Your task to perform on an android device: turn pop-ups on in chrome Image 0: 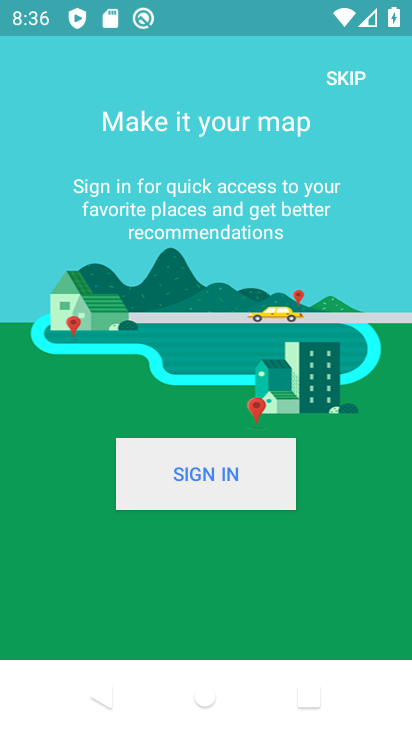
Step 0: press back button
Your task to perform on an android device: turn pop-ups on in chrome Image 1: 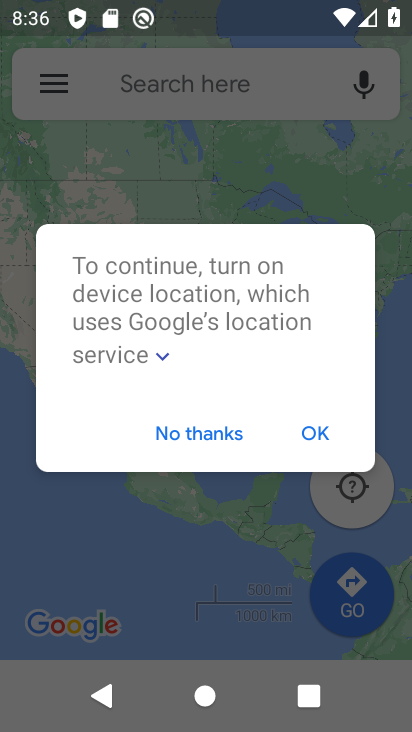
Step 1: press back button
Your task to perform on an android device: turn pop-ups on in chrome Image 2: 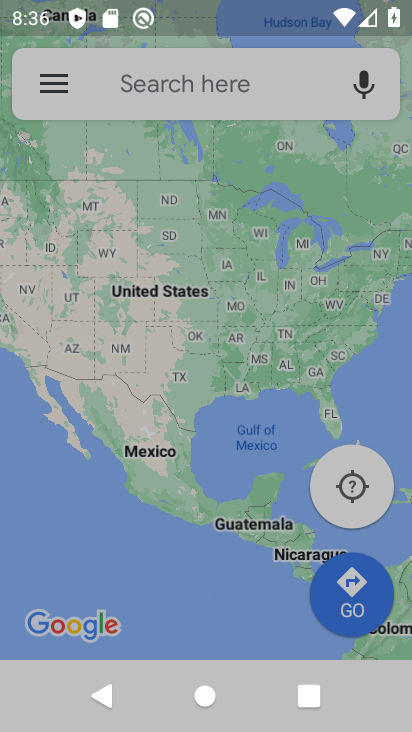
Step 2: click (204, 445)
Your task to perform on an android device: turn pop-ups on in chrome Image 3: 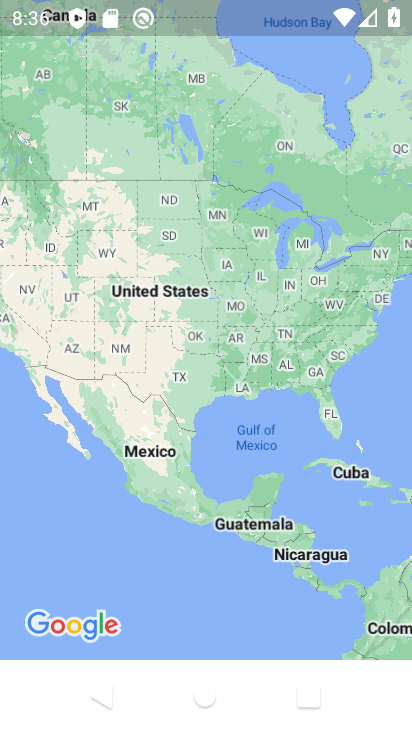
Step 3: press home button
Your task to perform on an android device: turn pop-ups on in chrome Image 4: 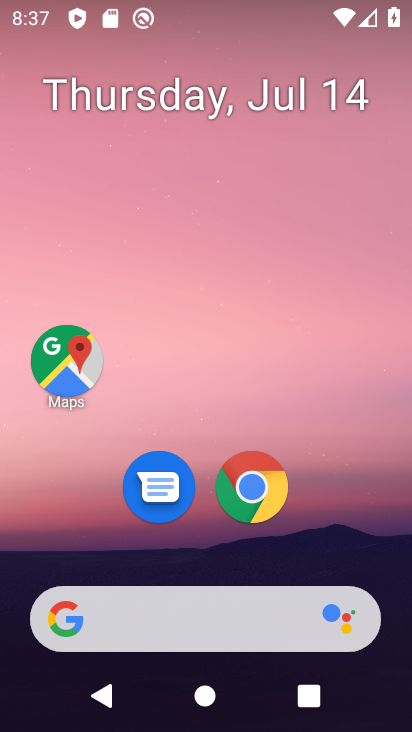
Step 4: click (259, 497)
Your task to perform on an android device: turn pop-ups on in chrome Image 5: 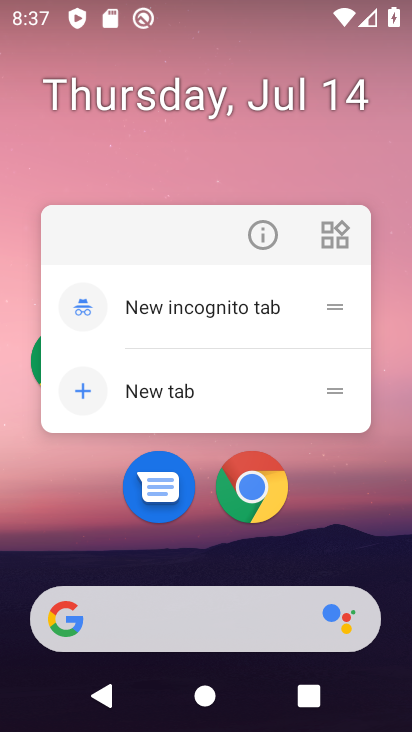
Step 5: click (259, 497)
Your task to perform on an android device: turn pop-ups on in chrome Image 6: 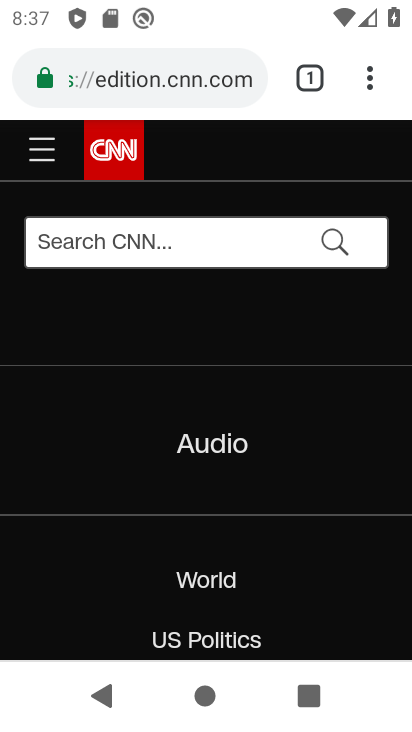
Step 6: drag from (373, 74) to (75, 552)
Your task to perform on an android device: turn pop-ups on in chrome Image 7: 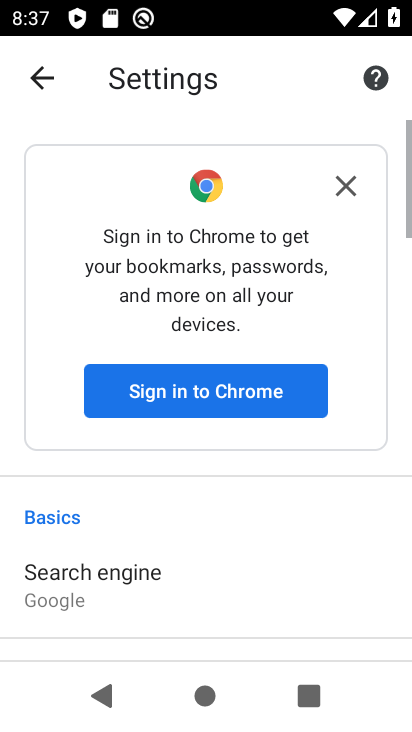
Step 7: drag from (167, 594) to (322, 35)
Your task to perform on an android device: turn pop-ups on in chrome Image 8: 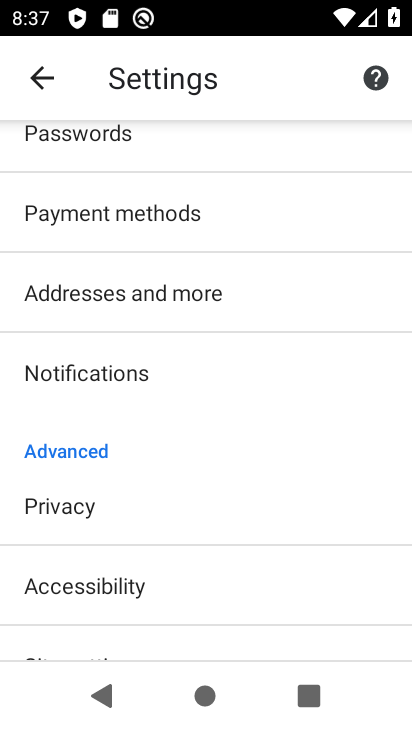
Step 8: drag from (252, 524) to (323, 94)
Your task to perform on an android device: turn pop-ups on in chrome Image 9: 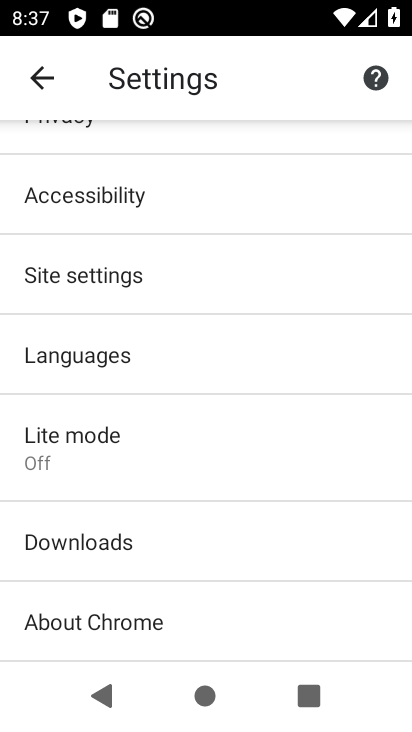
Step 9: click (113, 260)
Your task to perform on an android device: turn pop-ups on in chrome Image 10: 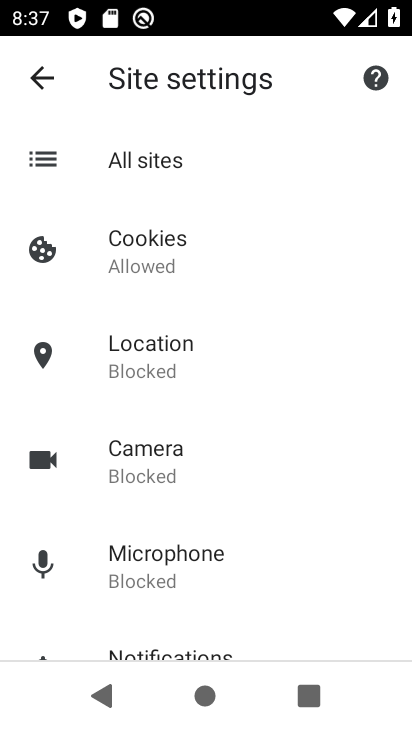
Step 10: drag from (174, 649) to (226, 171)
Your task to perform on an android device: turn pop-ups on in chrome Image 11: 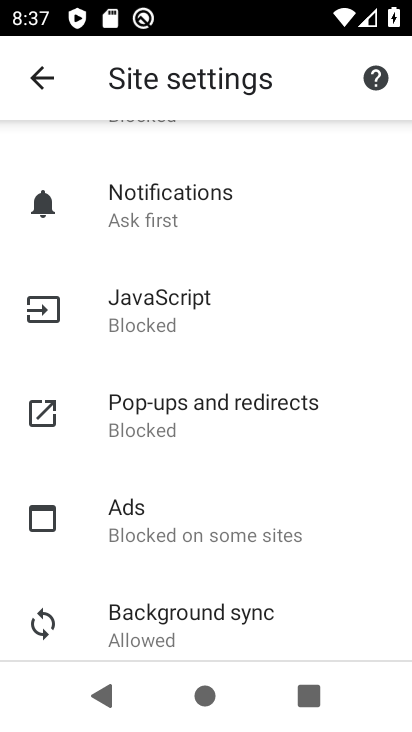
Step 11: click (143, 403)
Your task to perform on an android device: turn pop-ups on in chrome Image 12: 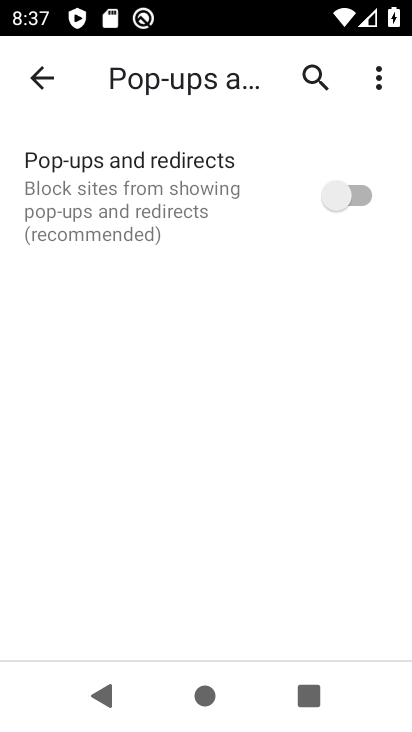
Step 12: click (351, 191)
Your task to perform on an android device: turn pop-ups on in chrome Image 13: 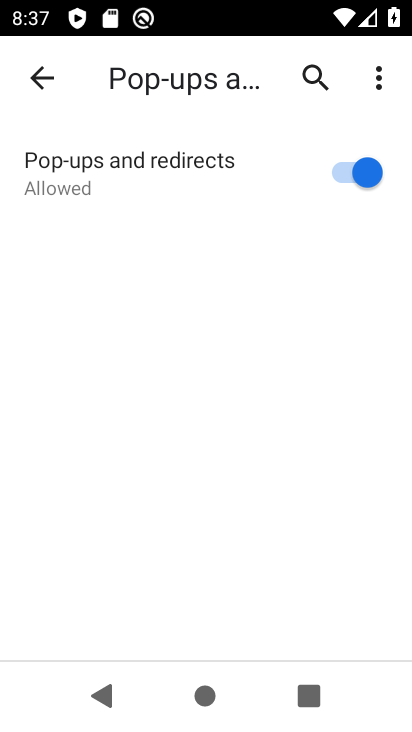
Step 13: task complete